Your task to perform on an android device: What's the weather going to be tomorrow? Image 0: 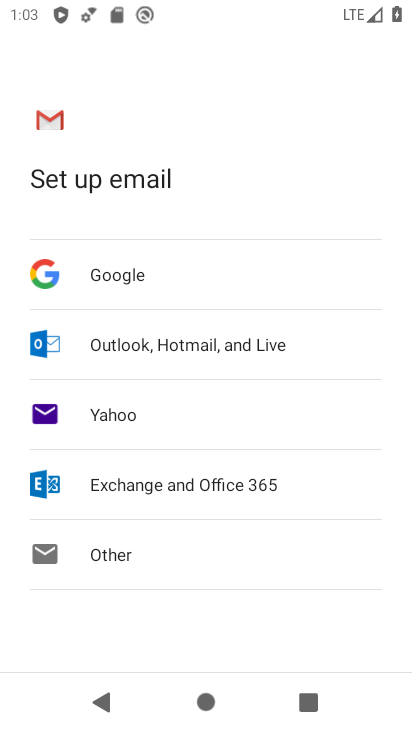
Step 0: press home button
Your task to perform on an android device: What's the weather going to be tomorrow? Image 1: 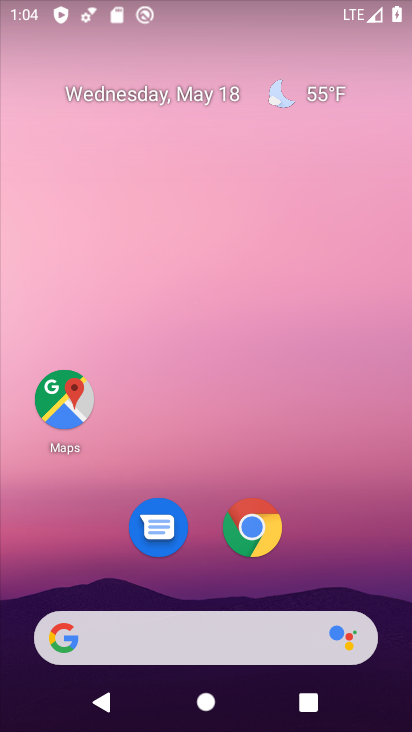
Step 1: click (329, 91)
Your task to perform on an android device: What's the weather going to be tomorrow? Image 2: 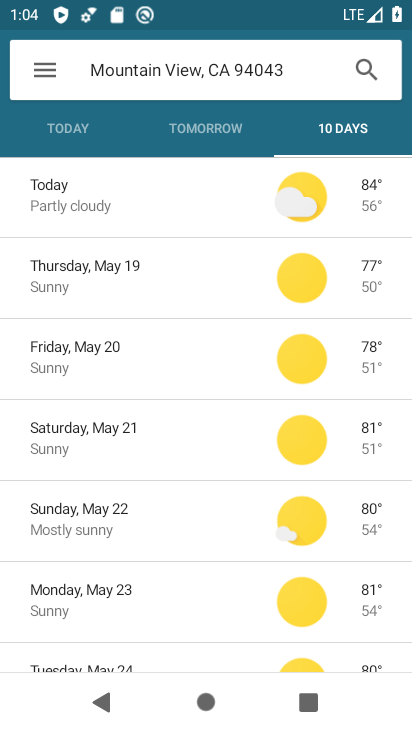
Step 2: click (198, 128)
Your task to perform on an android device: What's the weather going to be tomorrow? Image 3: 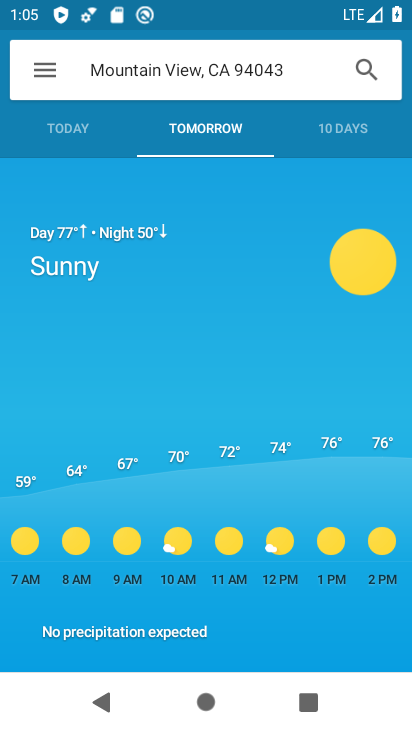
Step 3: task complete